Your task to perform on an android device: Open settings Image 0: 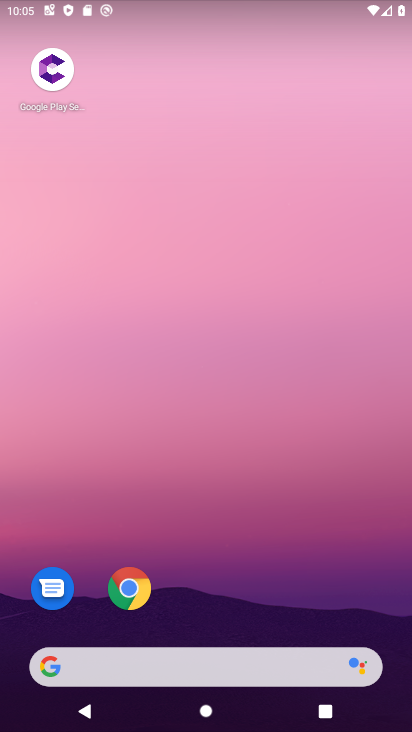
Step 0: drag from (215, 626) to (243, 159)
Your task to perform on an android device: Open settings Image 1: 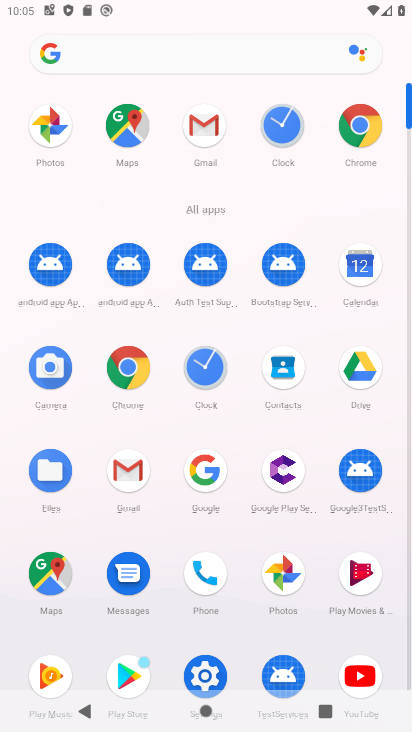
Step 1: click (213, 674)
Your task to perform on an android device: Open settings Image 2: 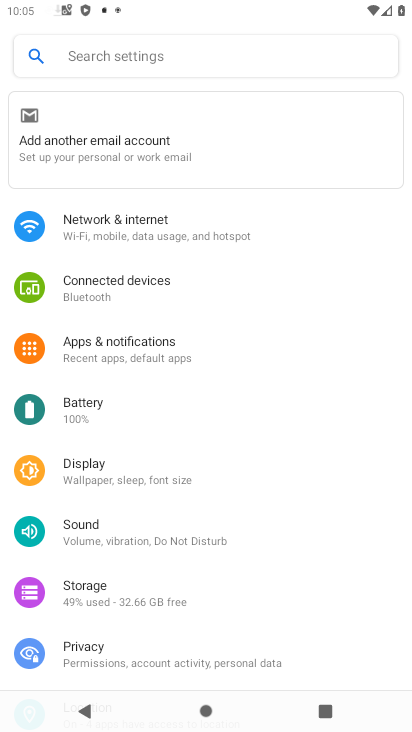
Step 2: task complete